Your task to perform on an android device: Open calendar and show me the second week of next month Image 0: 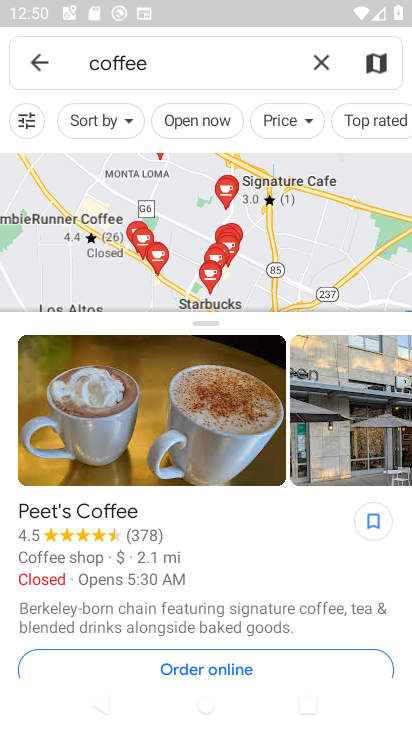
Step 0: press home button
Your task to perform on an android device: Open calendar and show me the second week of next month Image 1: 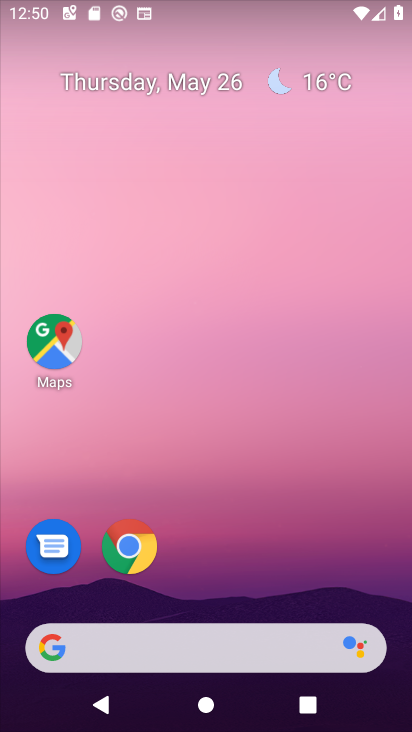
Step 1: drag from (217, 492) to (275, 242)
Your task to perform on an android device: Open calendar and show me the second week of next month Image 2: 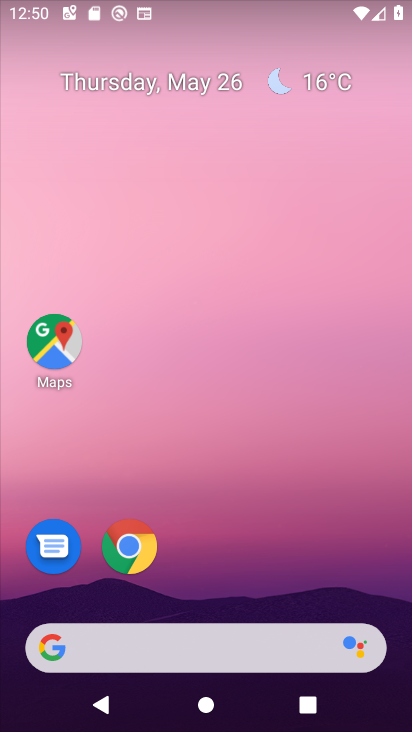
Step 2: drag from (220, 546) to (243, 180)
Your task to perform on an android device: Open calendar and show me the second week of next month Image 3: 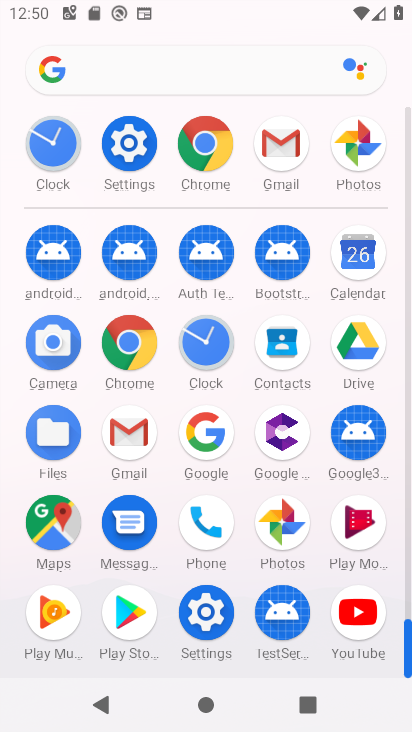
Step 3: click (354, 258)
Your task to perform on an android device: Open calendar and show me the second week of next month Image 4: 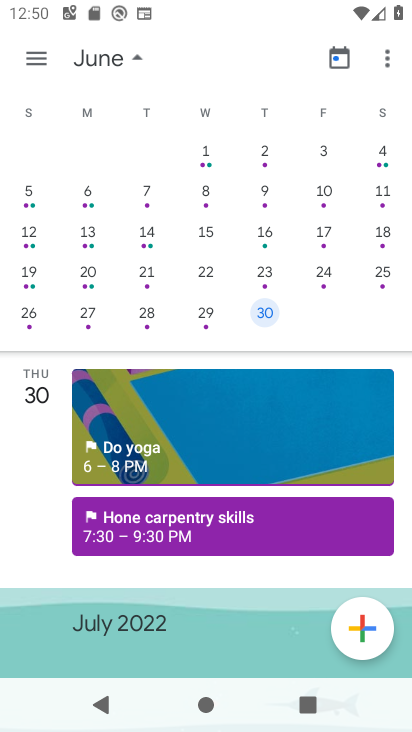
Step 4: click (205, 197)
Your task to perform on an android device: Open calendar and show me the second week of next month Image 5: 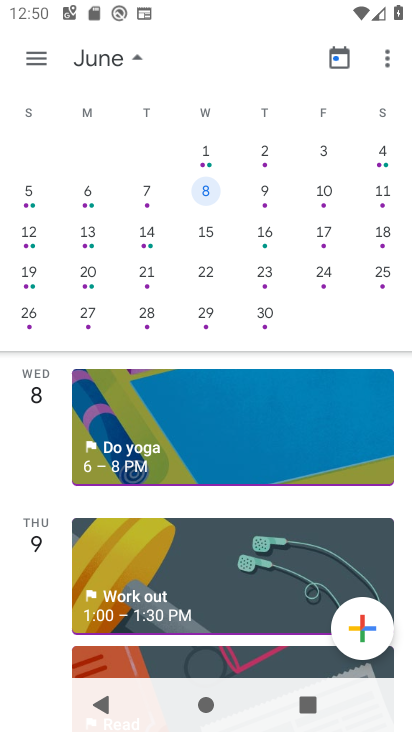
Step 5: click (280, 190)
Your task to perform on an android device: Open calendar and show me the second week of next month Image 6: 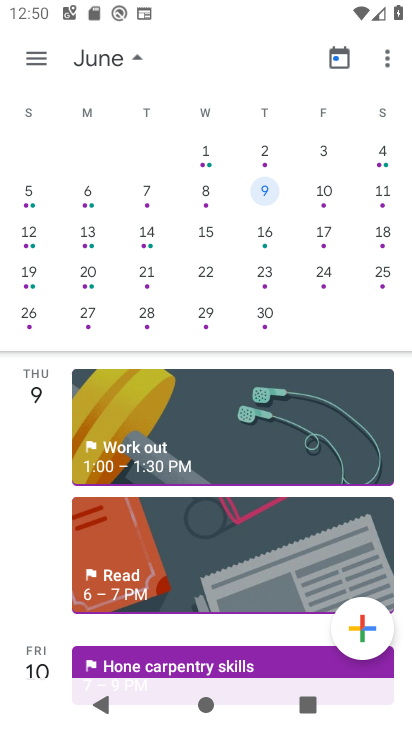
Step 6: click (35, 193)
Your task to perform on an android device: Open calendar and show me the second week of next month Image 7: 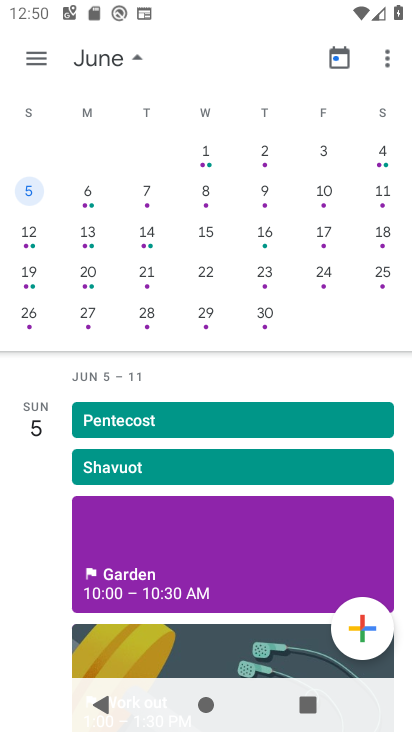
Step 7: click (67, 191)
Your task to perform on an android device: Open calendar and show me the second week of next month Image 8: 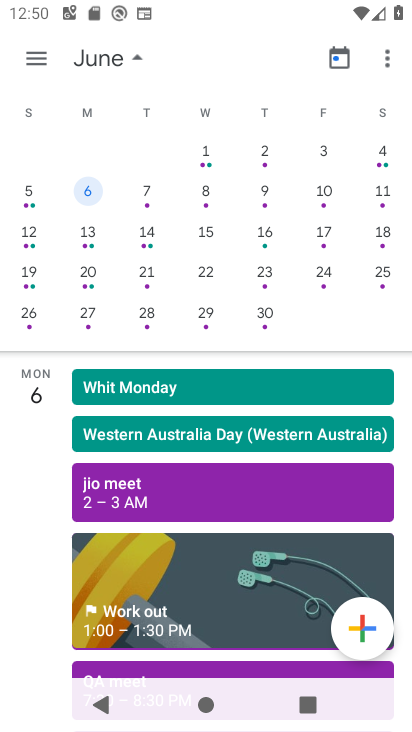
Step 8: click (138, 193)
Your task to perform on an android device: Open calendar and show me the second week of next month Image 9: 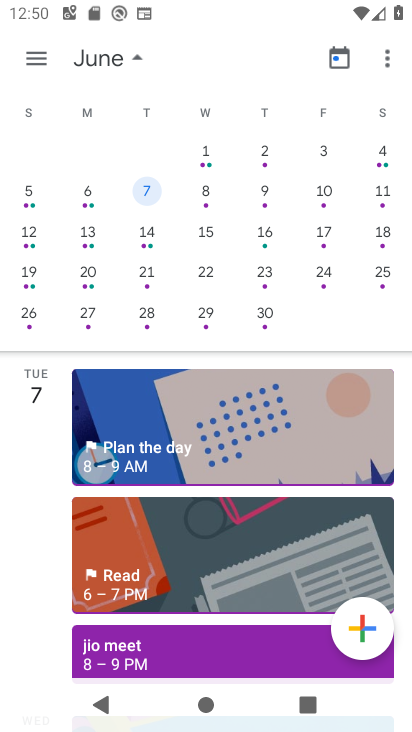
Step 9: click (333, 194)
Your task to perform on an android device: Open calendar and show me the second week of next month Image 10: 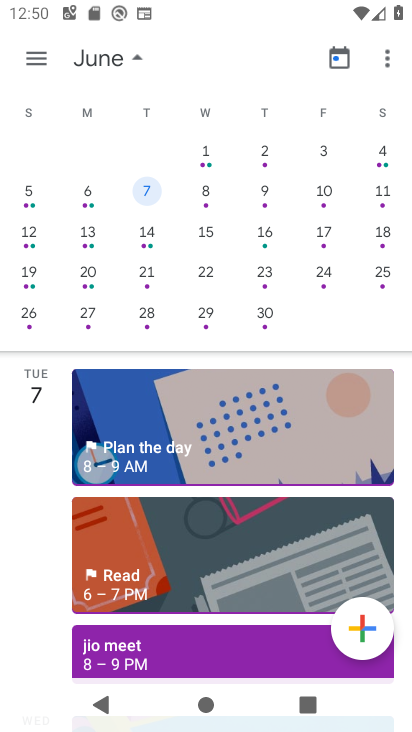
Step 10: click (386, 194)
Your task to perform on an android device: Open calendar and show me the second week of next month Image 11: 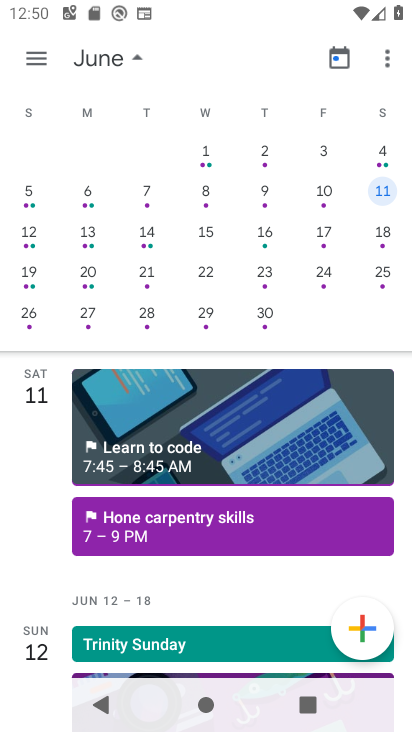
Step 11: task complete